Your task to perform on an android device: Add "macbook air" to the cart on walmart, then select checkout. Image 0: 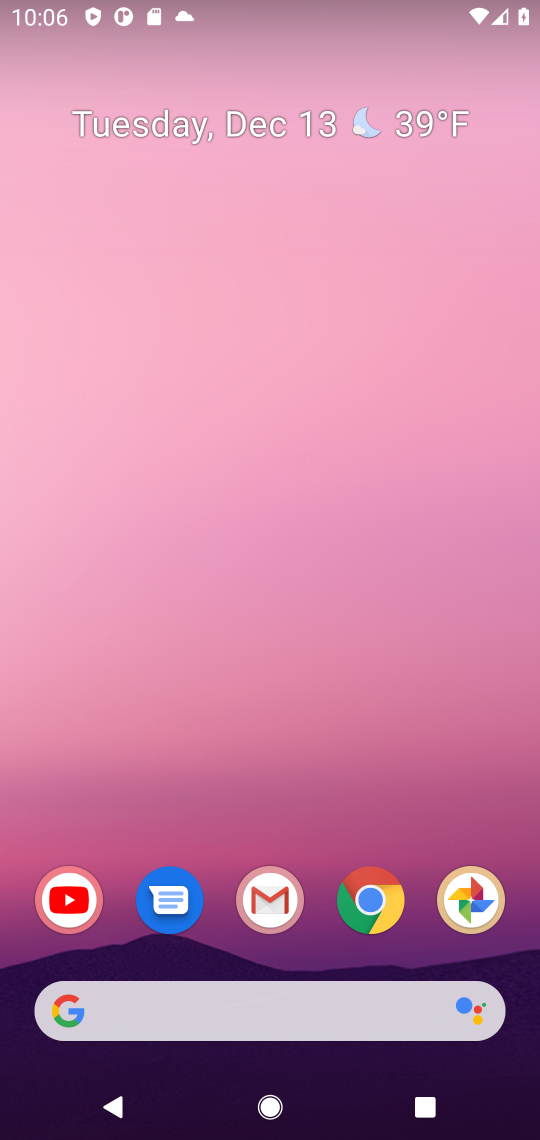
Step 0: task complete